Your task to perform on an android device: Open Google Chrome and click the shortcut for Amazon.com Image 0: 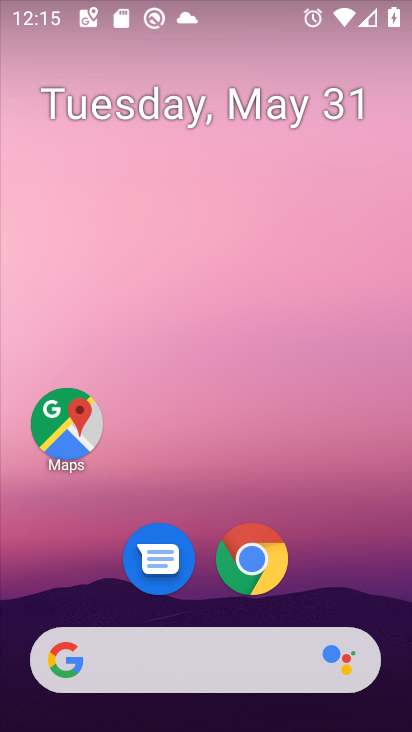
Step 0: drag from (380, 606) to (293, 154)
Your task to perform on an android device: Open Google Chrome and click the shortcut for Amazon.com Image 1: 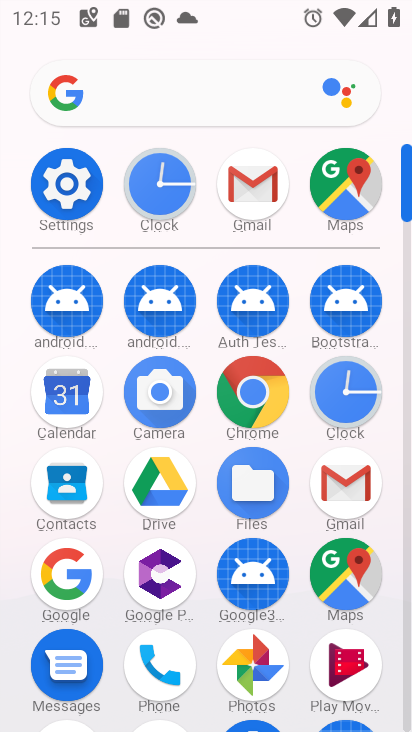
Step 1: click (255, 384)
Your task to perform on an android device: Open Google Chrome and click the shortcut for Amazon.com Image 2: 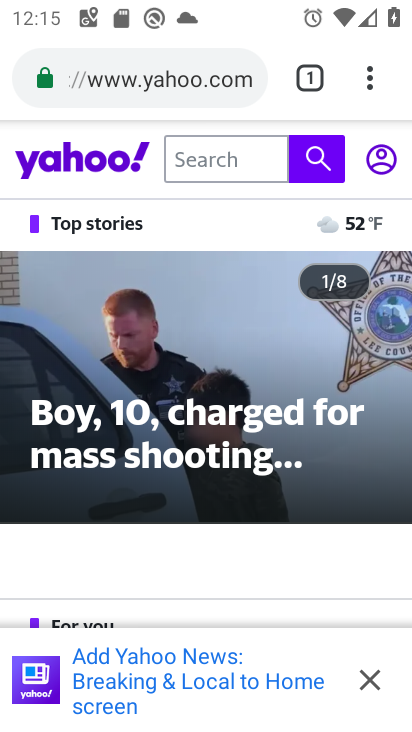
Step 2: click (318, 88)
Your task to perform on an android device: Open Google Chrome and click the shortcut for Amazon.com Image 3: 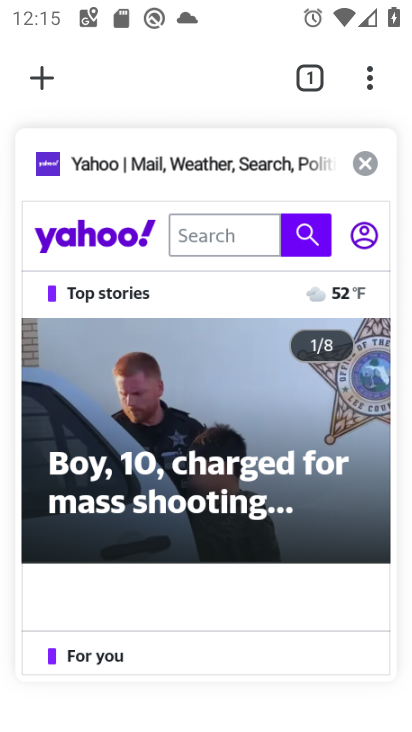
Step 3: click (51, 79)
Your task to perform on an android device: Open Google Chrome and click the shortcut for Amazon.com Image 4: 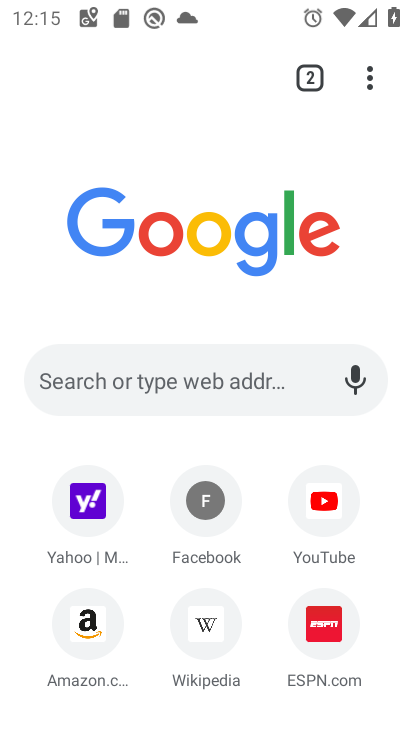
Step 4: click (105, 635)
Your task to perform on an android device: Open Google Chrome and click the shortcut for Amazon.com Image 5: 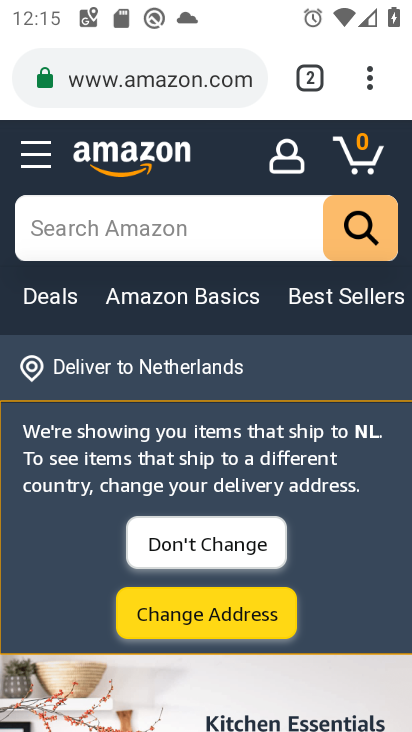
Step 5: task complete